Your task to perform on an android device: How big is a tiger? Image 0: 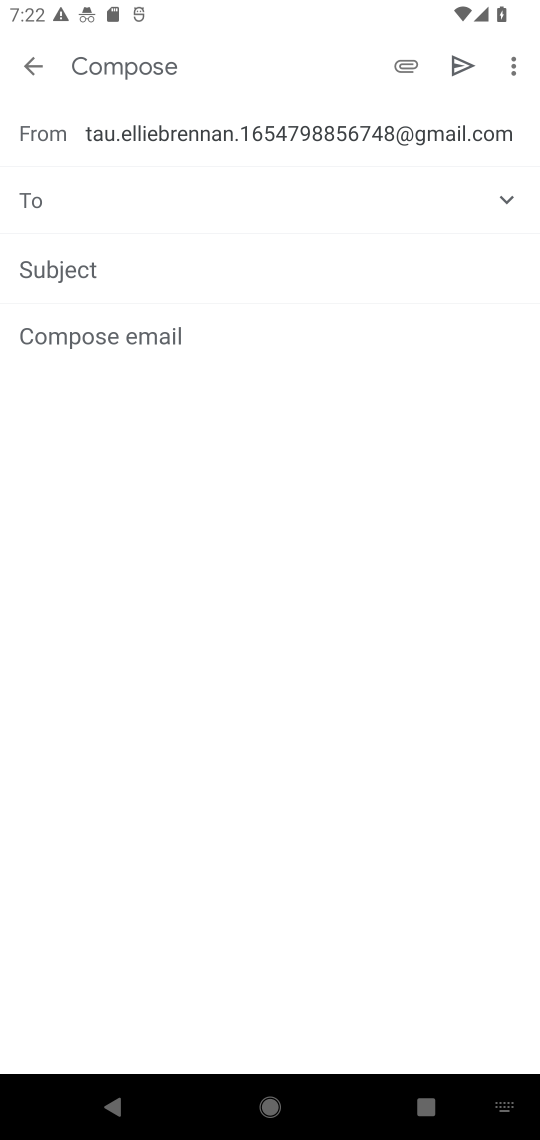
Step 0: press home button
Your task to perform on an android device: How big is a tiger? Image 1: 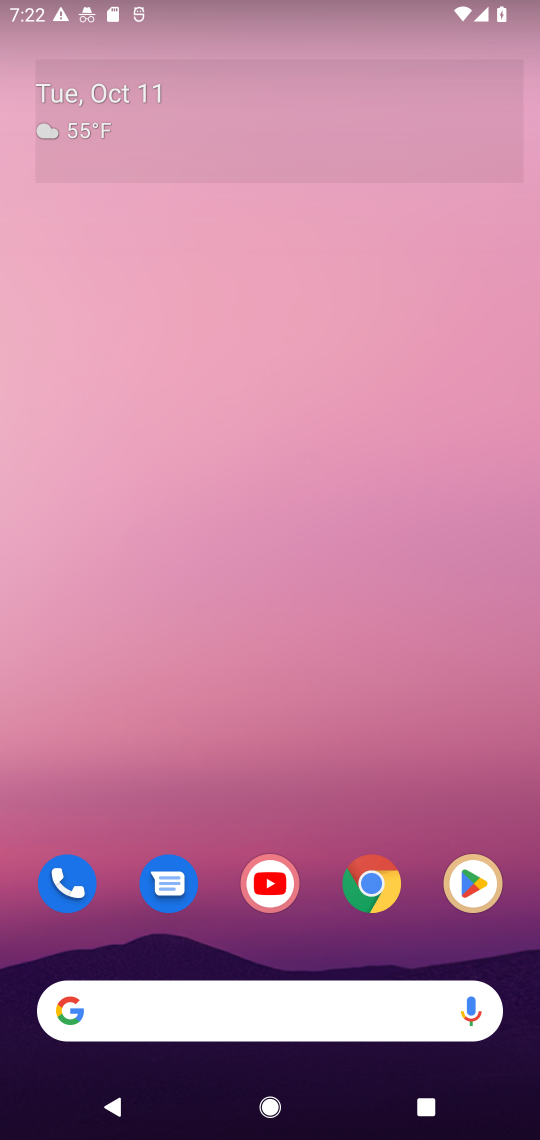
Step 1: drag from (307, 942) to (326, 24)
Your task to perform on an android device: How big is a tiger? Image 2: 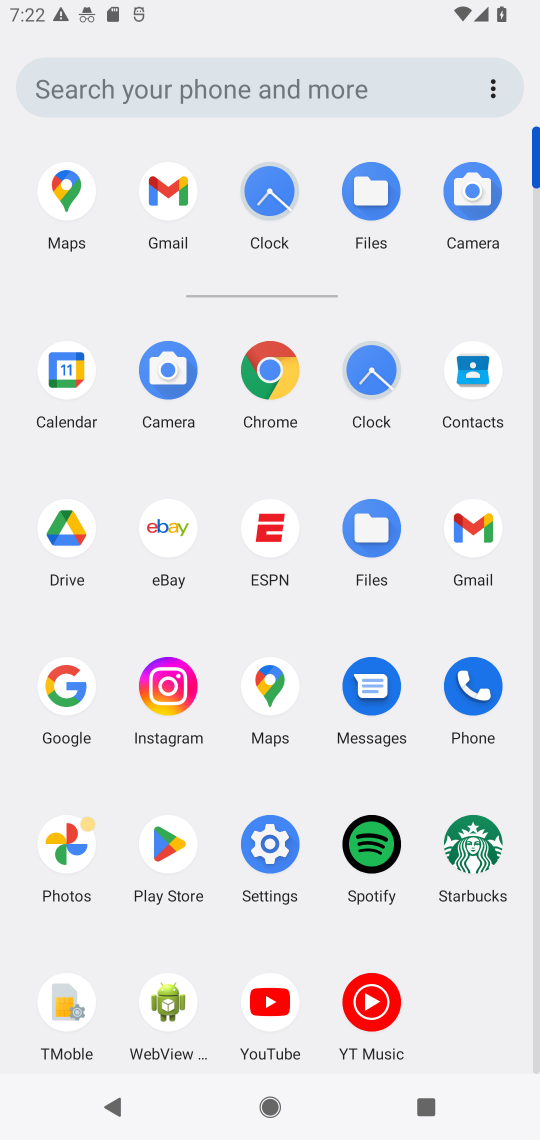
Step 2: click (277, 365)
Your task to perform on an android device: How big is a tiger? Image 3: 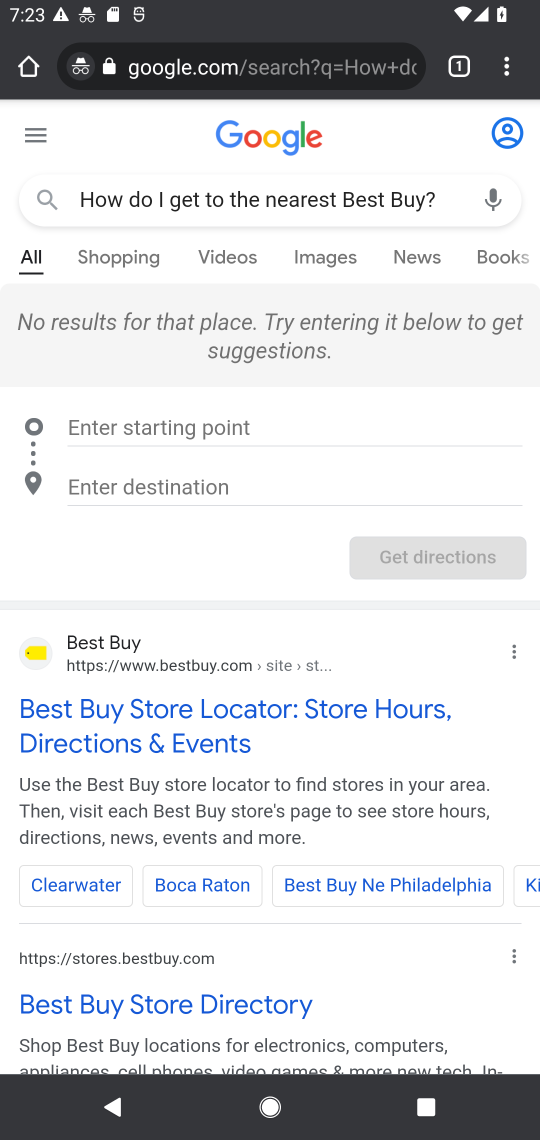
Step 3: click (279, 69)
Your task to perform on an android device: How big is a tiger? Image 4: 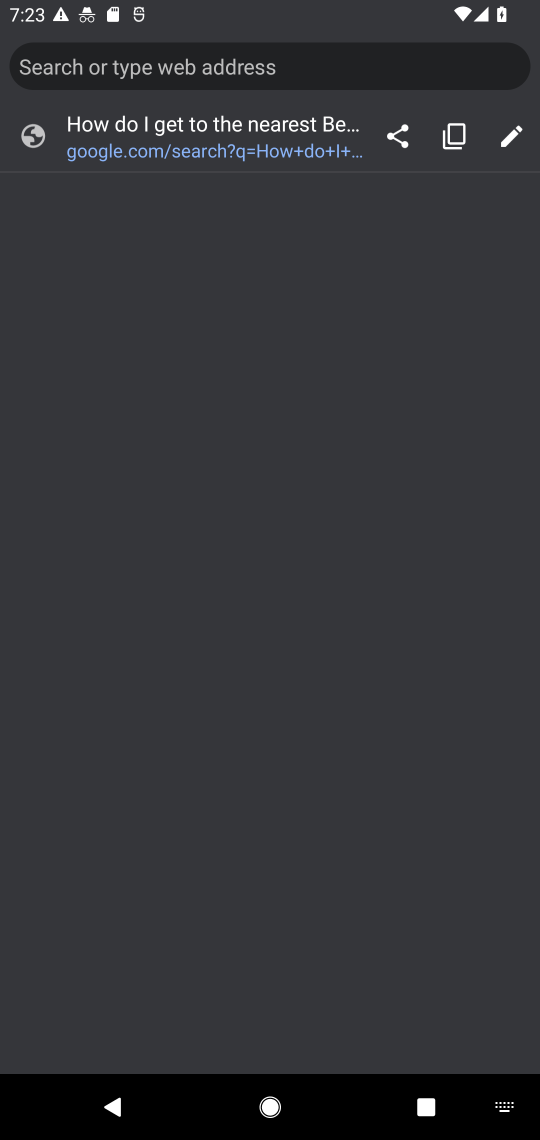
Step 4: type "How big is a tiger?"
Your task to perform on an android device: How big is a tiger? Image 5: 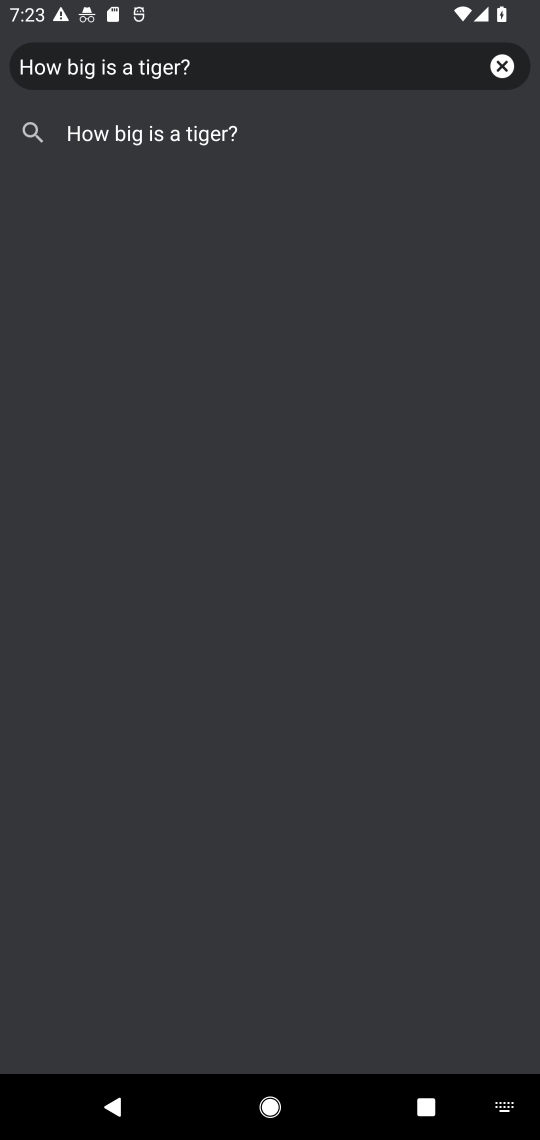
Step 5: press enter
Your task to perform on an android device: How big is a tiger? Image 6: 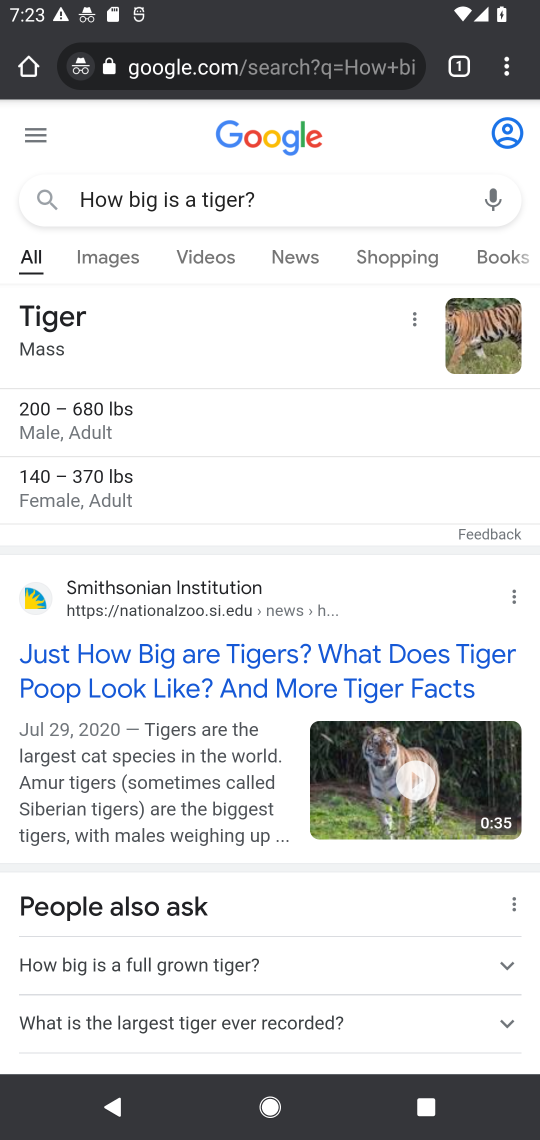
Step 6: task complete